Your task to perform on an android device: toggle priority inbox in the gmail app Image 0: 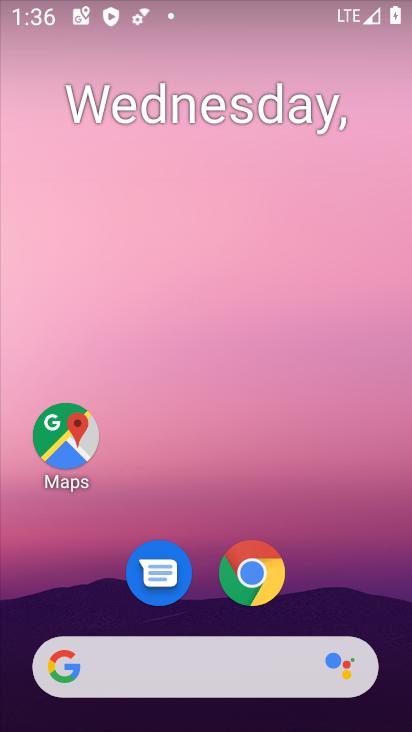
Step 0: drag from (208, 573) to (240, 228)
Your task to perform on an android device: toggle priority inbox in the gmail app Image 1: 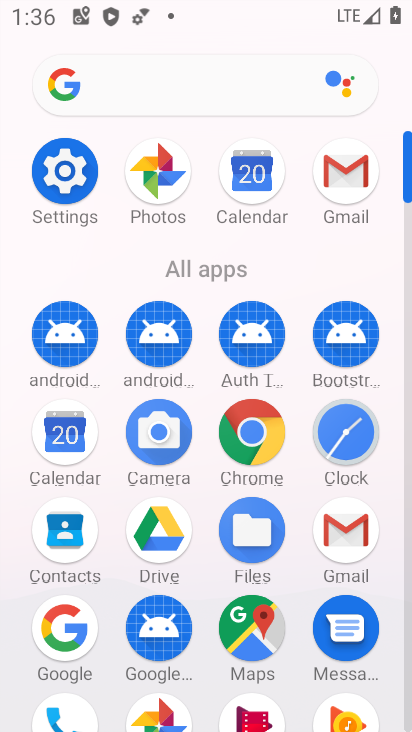
Step 1: click (346, 178)
Your task to perform on an android device: toggle priority inbox in the gmail app Image 2: 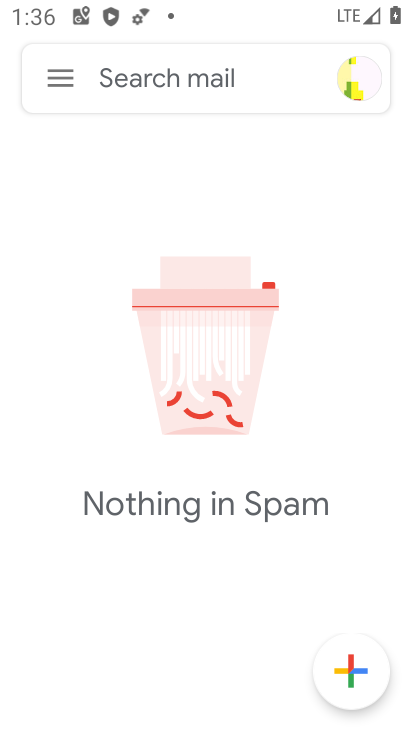
Step 2: click (45, 75)
Your task to perform on an android device: toggle priority inbox in the gmail app Image 3: 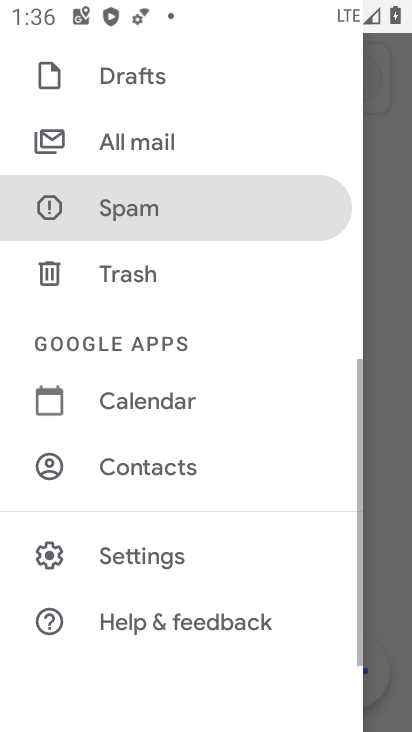
Step 3: click (165, 555)
Your task to perform on an android device: toggle priority inbox in the gmail app Image 4: 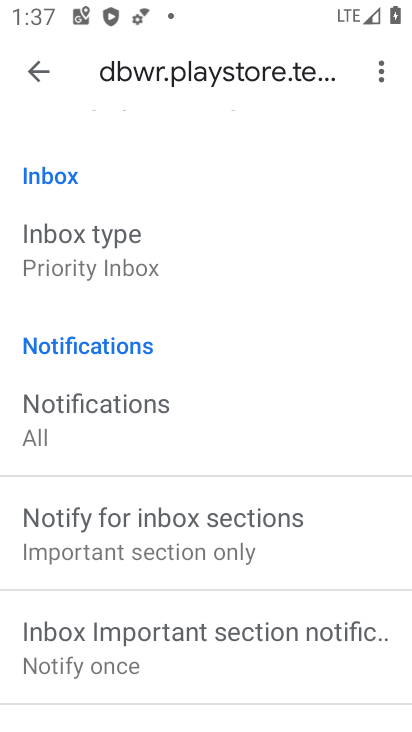
Step 4: click (125, 248)
Your task to perform on an android device: toggle priority inbox in the gmail app Image 5: 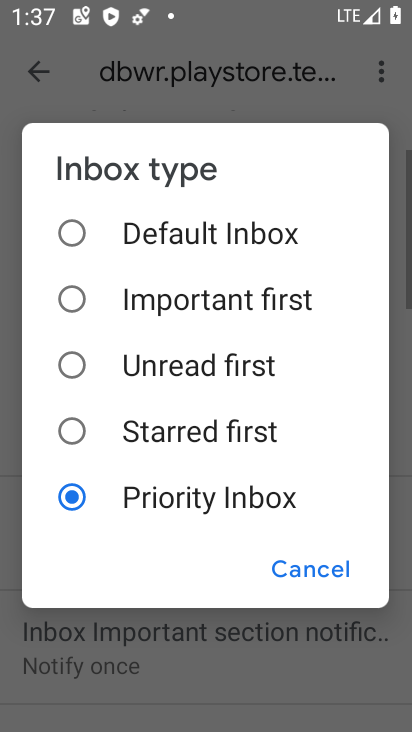
Step 5: click (69, 233)
Your task to perform on an android device: toggle priority inbox in the gmail app Image 6: 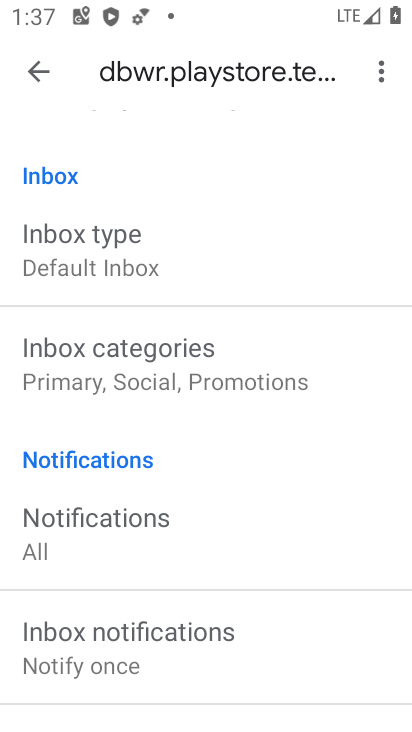
Step 6: task complete